Your task to perform on an android device: Show me popular videos on Youtube Image 0: 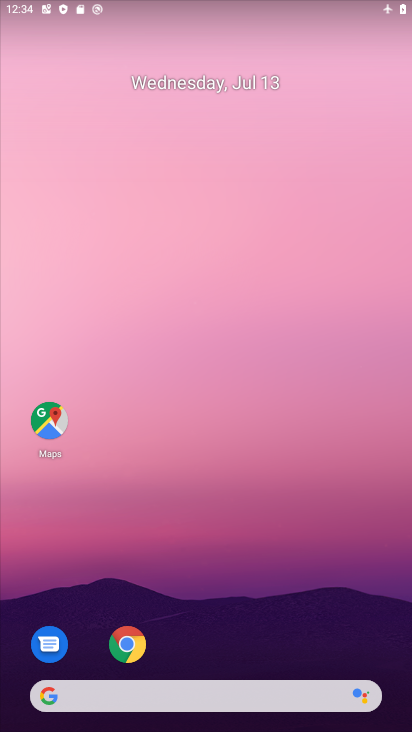
Step 0: drag from (304, 625) to (237, 130)
Your task to perform on an android device: Show me popular videos on Youtube Image 1: 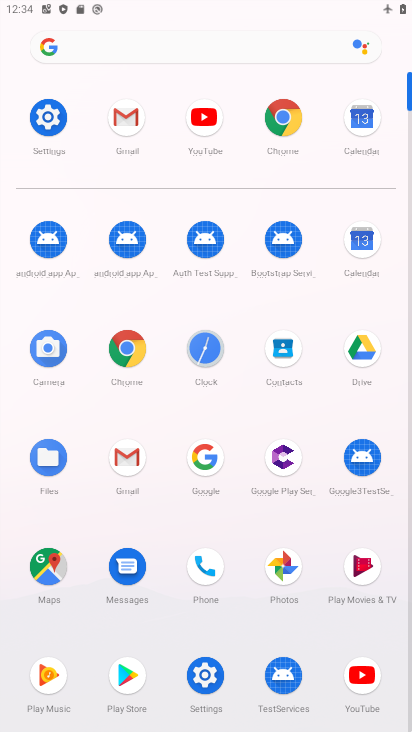
Step 1: click (370, 675)
Your task to perform on an android device: Show me popular videos on Youtube Image 2: 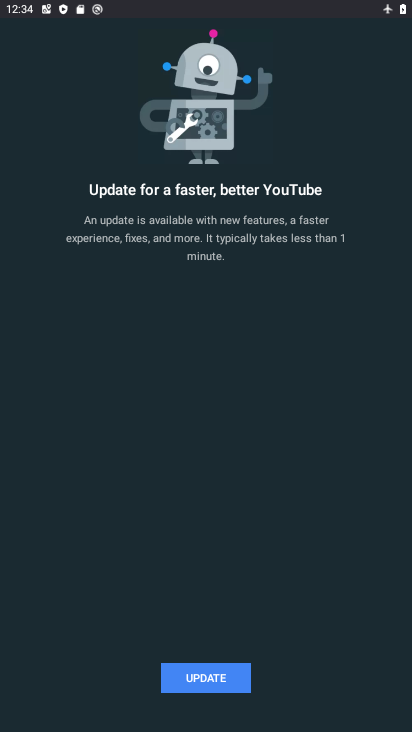
Step 2: task complete